Your task to perform on an android device: Open Amazon Image 0: 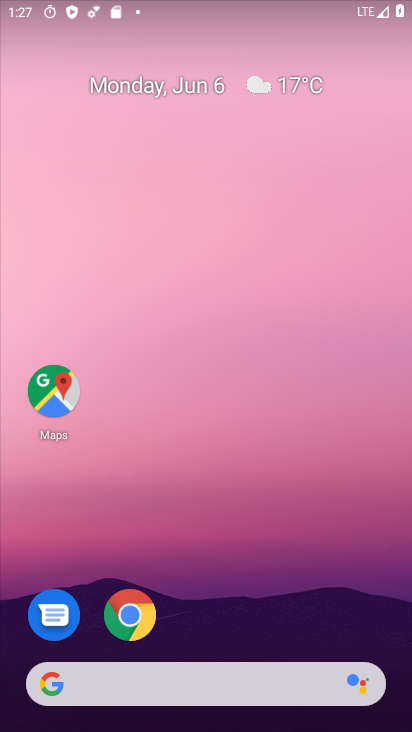
Step 0: drag from (219, 582) to (269, 162)
Your task to perform on an android device: Open Amazon Image 1: 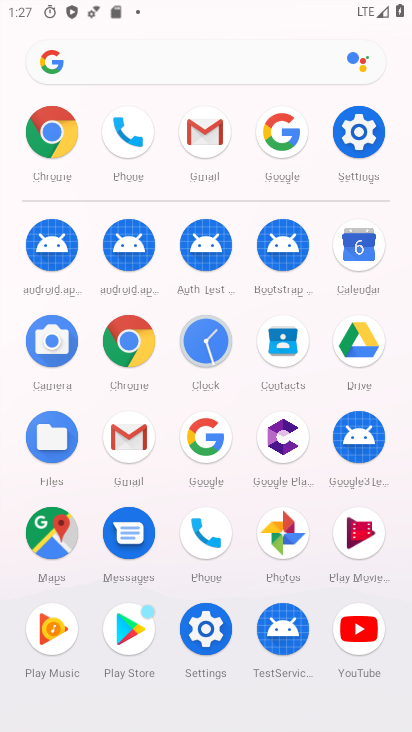
Step 1: drag from (160, 585) to (130, 110)
Your task to perform on an android device: Open Amazon Image 2: 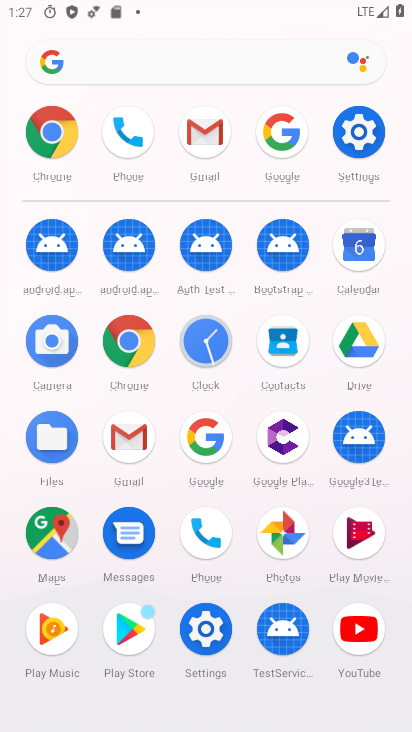
Step 2: click (172, 60)
Your task to perform on an android device: Open Amazon Image 3: 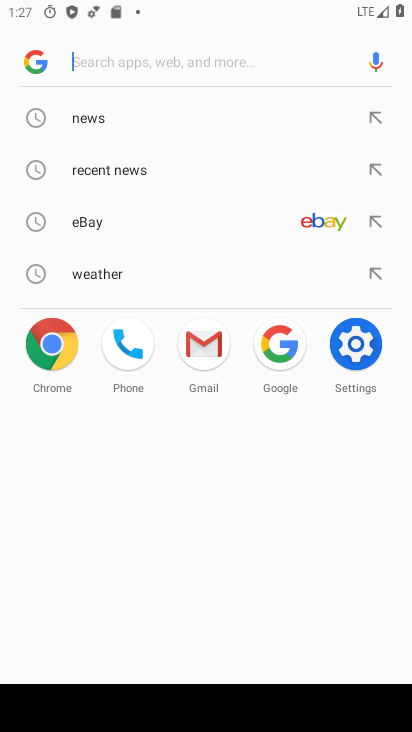
Step 3: click (123, 52)
Your task to perform on an android device: Open Amazon Image 4: 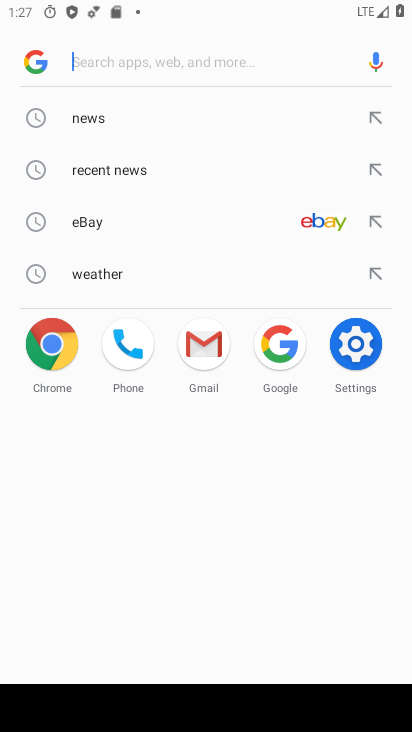
Step 4: type "Amazon"
Your task to perform on an android device: Open Amazon Image 5: 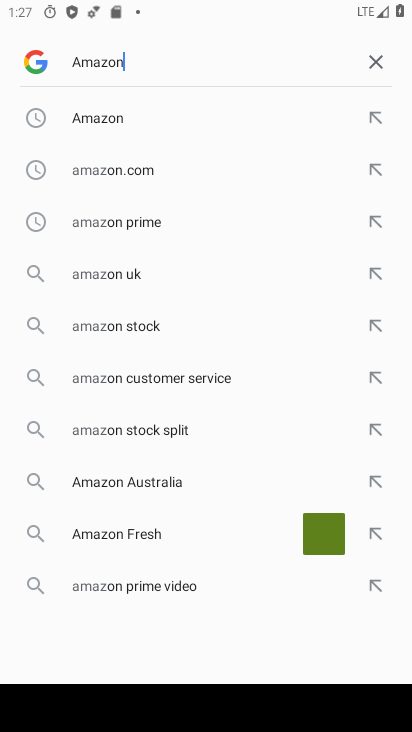
Step 5: type ""
Your task to perform on an android device: Open Amazon Image 6: 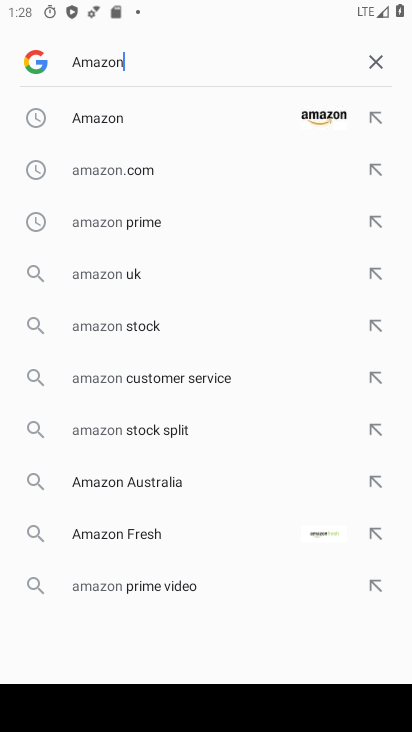
Step 6: click (95, 119)
Your task to perform on an android device: Open Amazon Image 7: 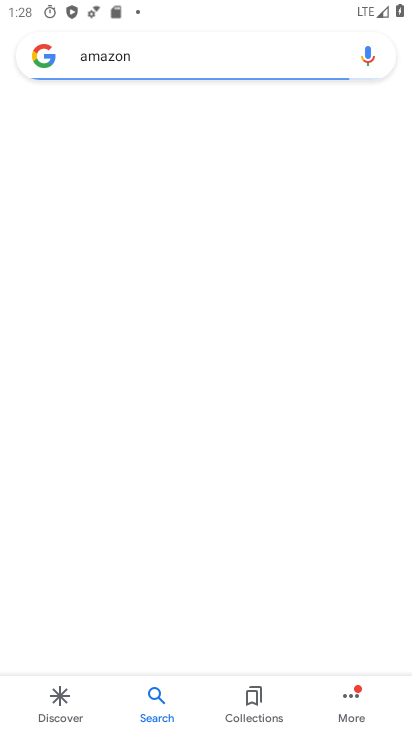
Step 7: task complete